Your task to perform on an android device: Go to CNN.com Image 0: 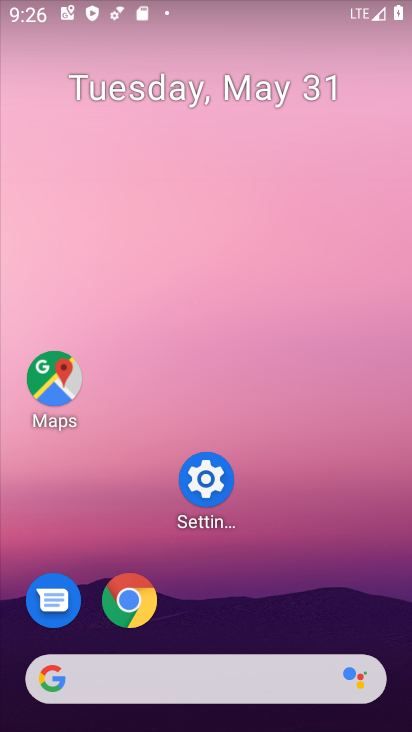
Step 0: click (134, 602)
Your task to perform on an android device: Go to CNN.com Image 1: 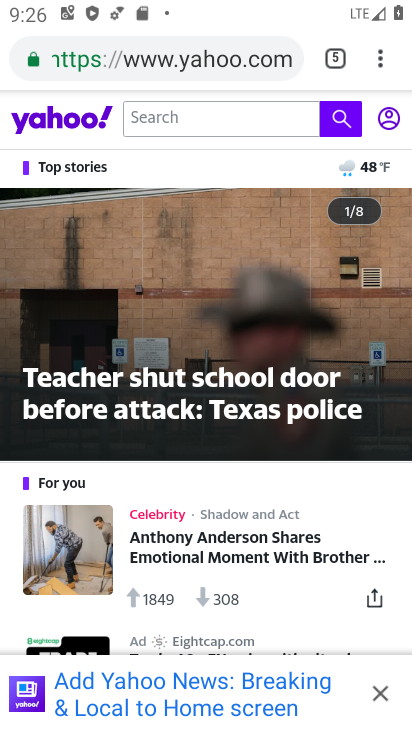
Step 1: click (177, 82)
Your task to perform on an android device: Go to CNN.com Image 2: 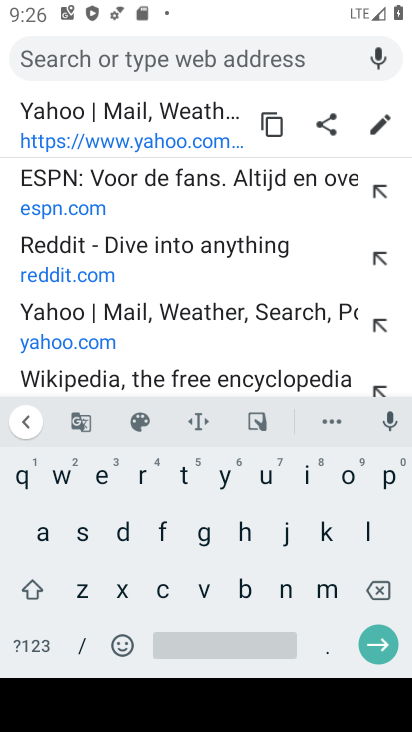
Step 2: click (158, 587)
Your task to perform on an android device: Go to CNN.com Image 3: 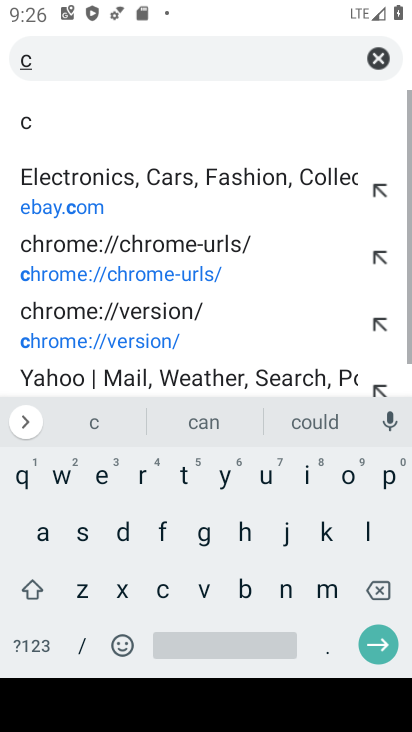
Step 3: click (286, 583)
Your task to perform on an android device: Go to CNN.com Image 4: 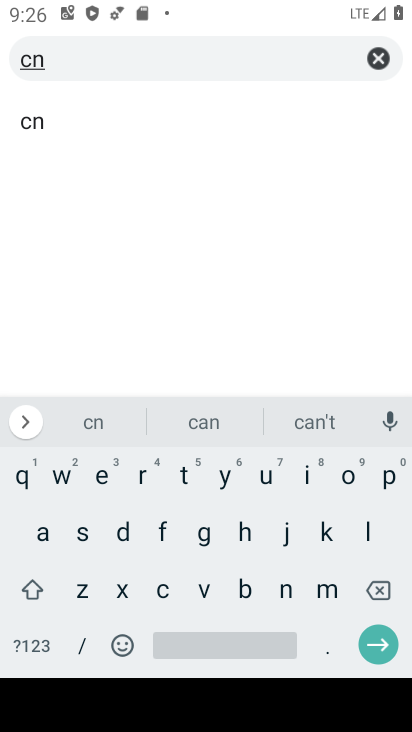
Step 4: click (286, 583)
Your task to perform on an android device: Go to CNN.com Image 5: 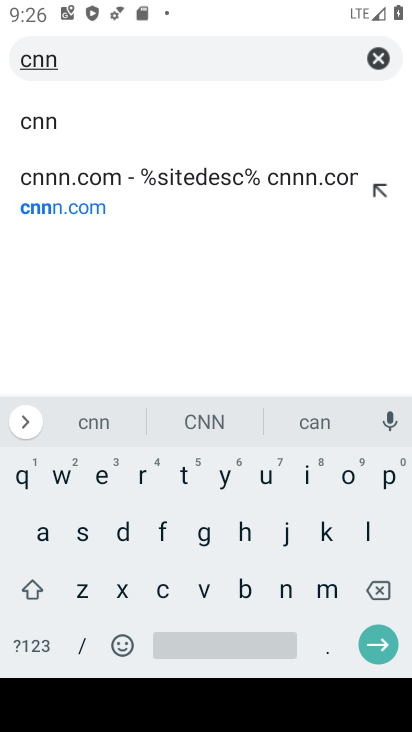
Step 5: click (89, 183)
Your task to perform on an android device: Go to CNN.com Image 6: 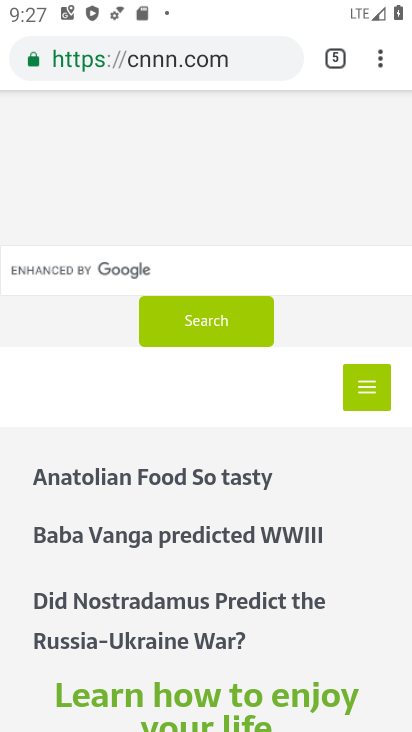
Step 6: task complete